Your task to perform on an android device: toggle show notifications on the lock screen Image 0: 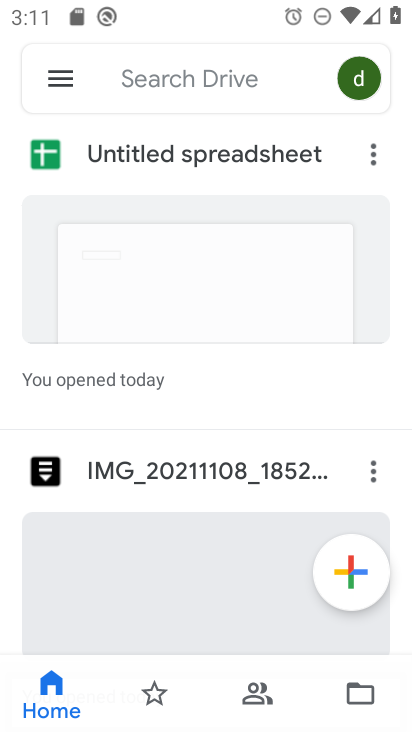
Step 0: press home button
Your task to perform on an android device: toggle show notifications on the lock screen Image 1: 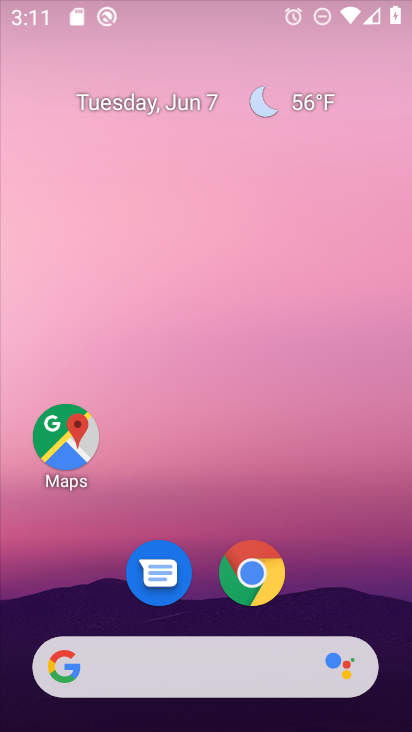
Step 1: drag from (327, 538) to (323, 70)
Your task to perform on an android device: toggle show notifications on the lock screen Image 2: 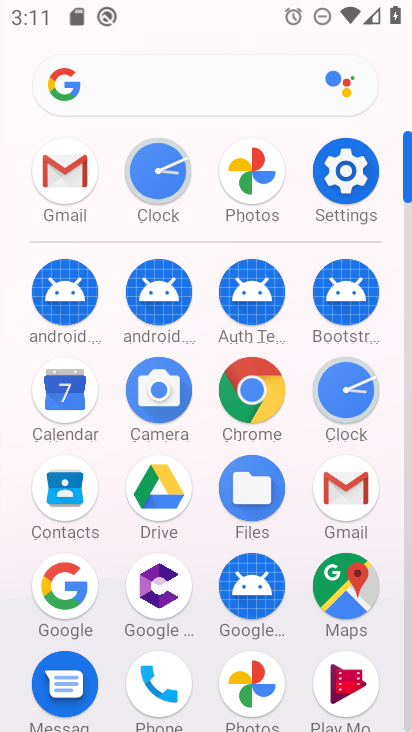
Step 2: click (339, 158)
Your task to perform on an android device: toggle show notifications on the lock screen Image 3: 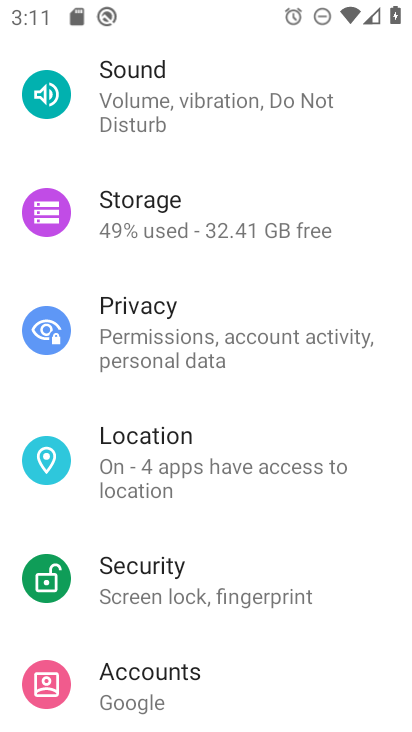
Step 3: drag from (246, 139) to (252, 455)
Your task to perform on an android device: toggle show notifications on the lock screen Image 4: 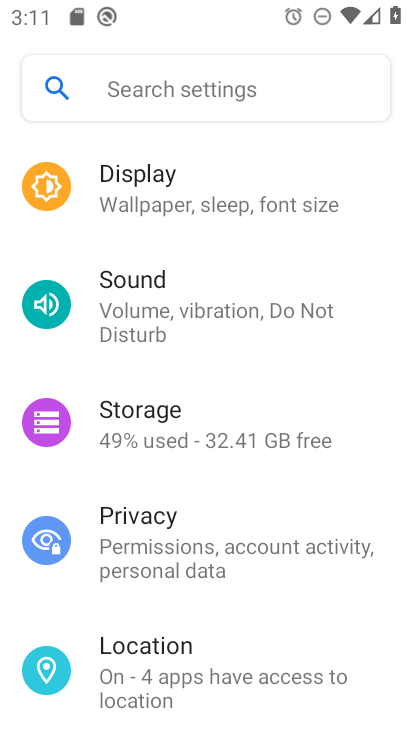
Step 4: drag from (277, 237) to (270, 574)
Your task to perform on an android device: toggle show notifications on the lock screen Image 5: 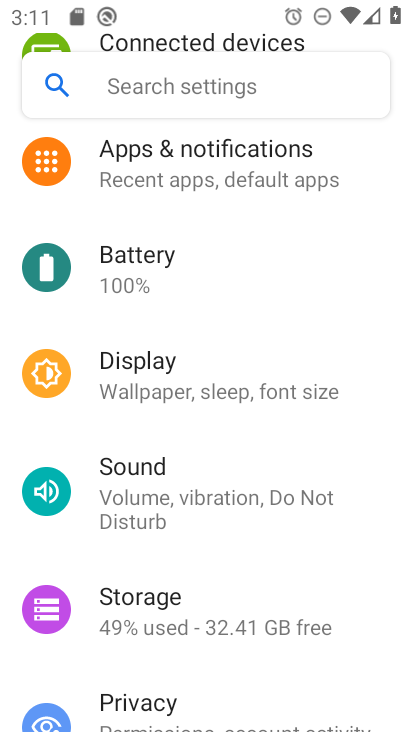
Step 5: click (273, 176)
Your task to perform on an android device: toggle show notifications on the lock screen Image 6: 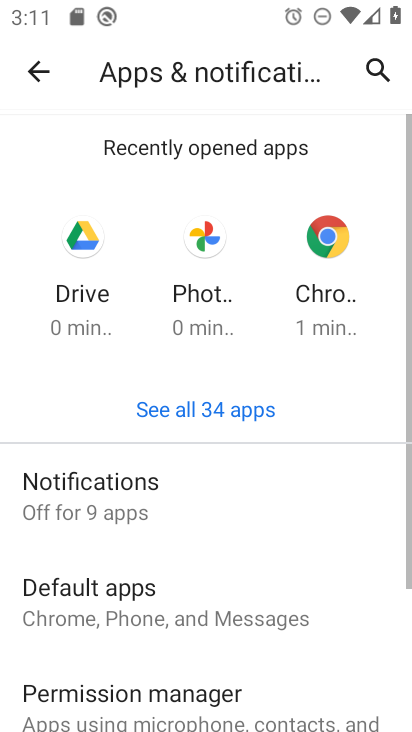
Step 6: click (204, 524)
Your task to perform on an android device: toggle show notifications on the lock screen Image 7: 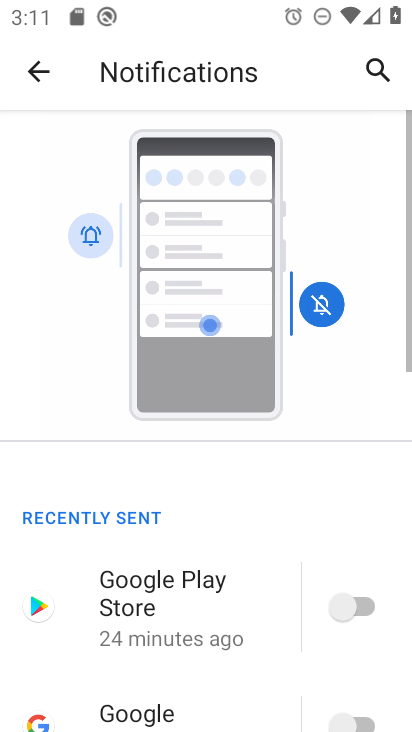
Step 7: drag from (108, 672) to (136, 187)
Your task to perform on an android device: toggle show notifications on the lock screen Image 8: 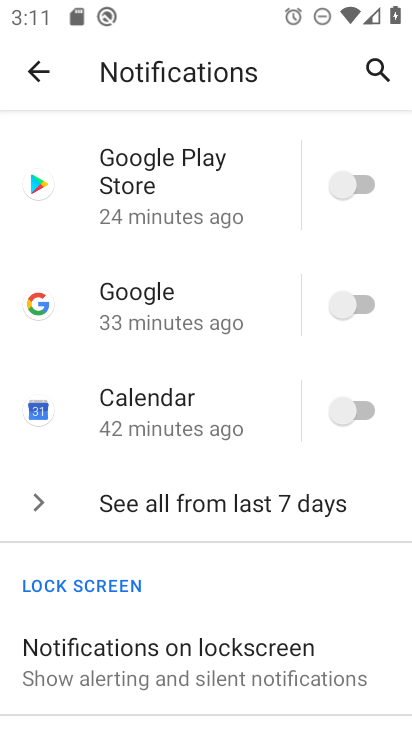
Step 8: click (129, 657)
Your task to perform on an android device: toggle show notifications on the lock screen Image 9: 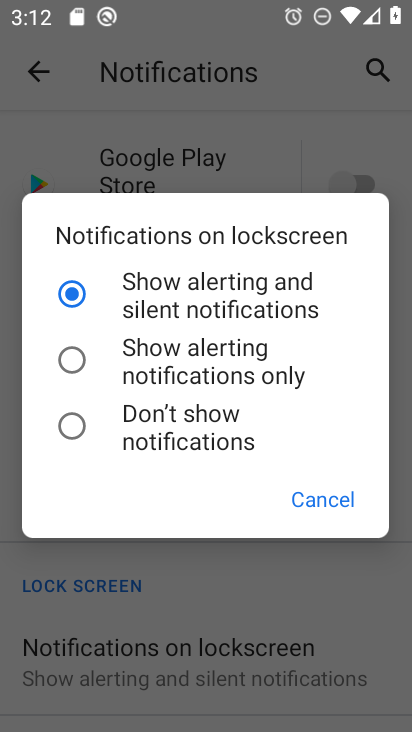
Step 9: click (166, 345)
Your task to perform on an android device: toggle show notifications on the lock screen Image 10: 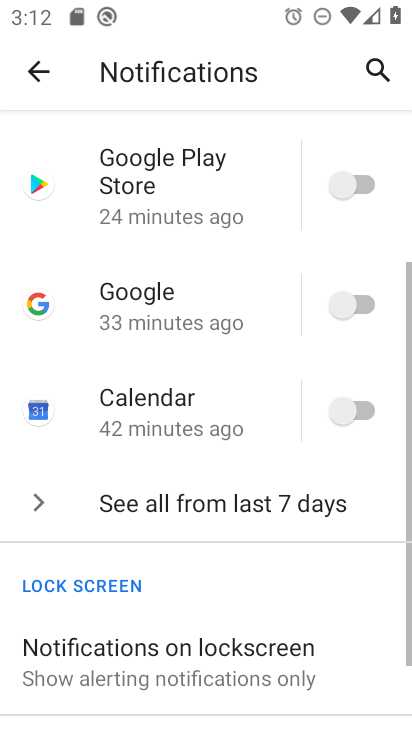
Step 10: task complete